Your task to perform on an android device: manage bookmarks in the chrome app Image 0: 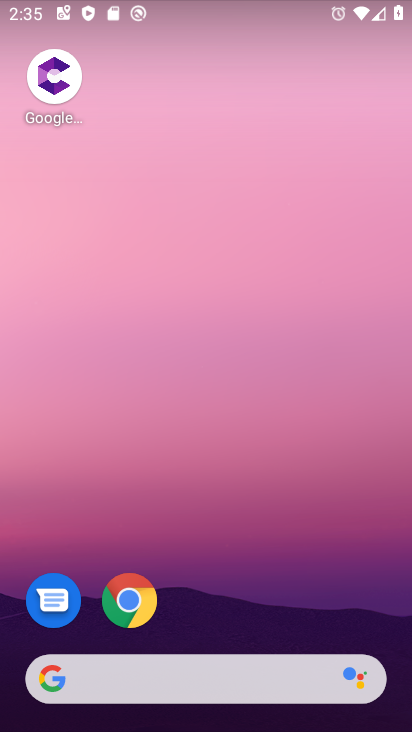
Step 0: drag from (317, 560) to (227, 0)
Your task to perform on an android device: manage bookmarks in the chrome app Image 1: 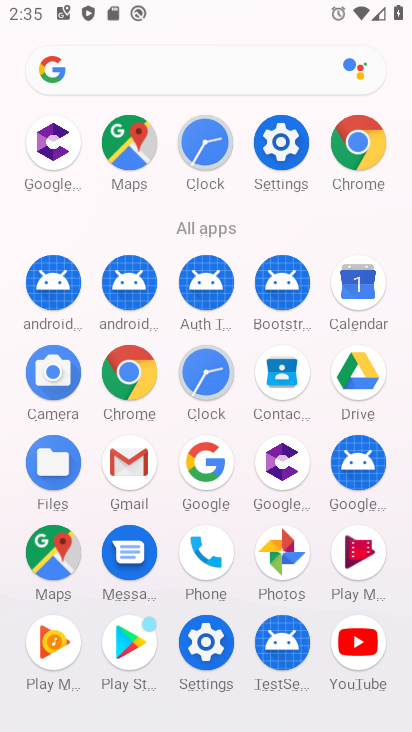
Step 1: drag from (5, 571) to (38, 157)
Your task to perform on an android device: manage bookmarks in the chrome app Image 2: 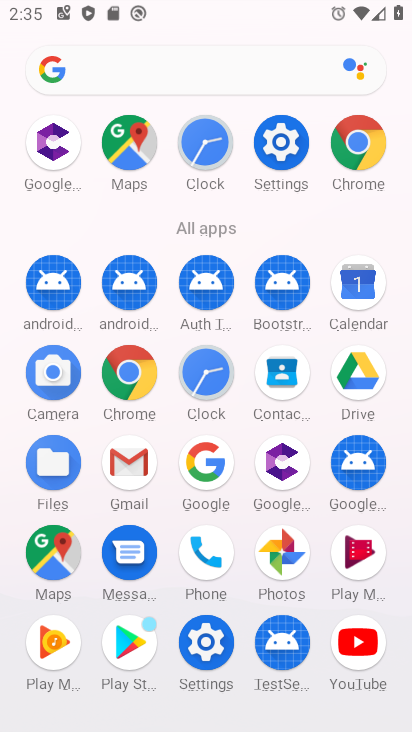
Step 2: drag from (12, 477) to (11, 173)
Your task to perform on an android device: manage bookmarks in the chrome app Image 3: 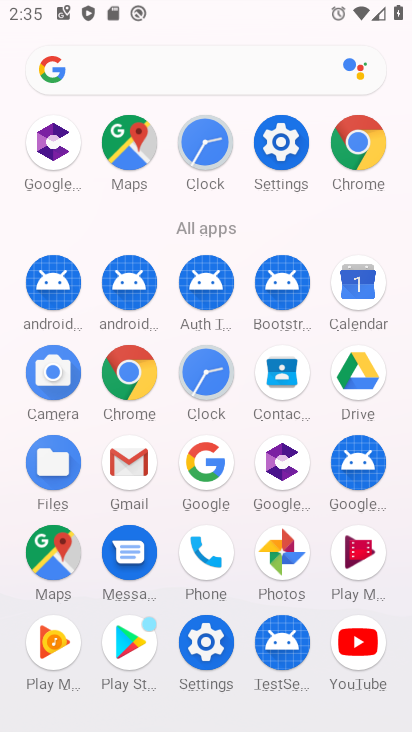
Step 3: click (352, 147)
Your task to perform on an android device: manage bookmarks in the chrome app Image 4: 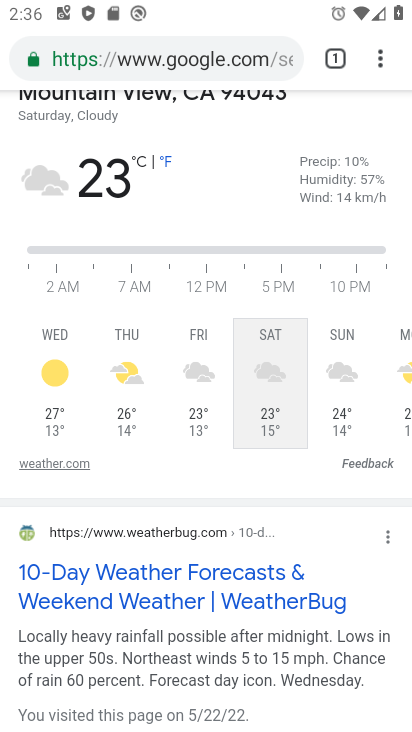
Step 4: task complete